Your task to perform on an android device: Search for vegetarian restaurants on Maps Image 0: 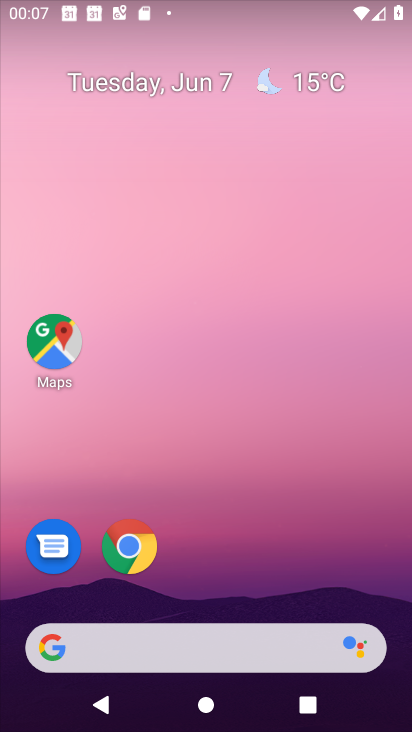
Step 0: click (74, 352)
Your task to perform on an android device: Search for vegetarian restaurants on Maps Image 1: 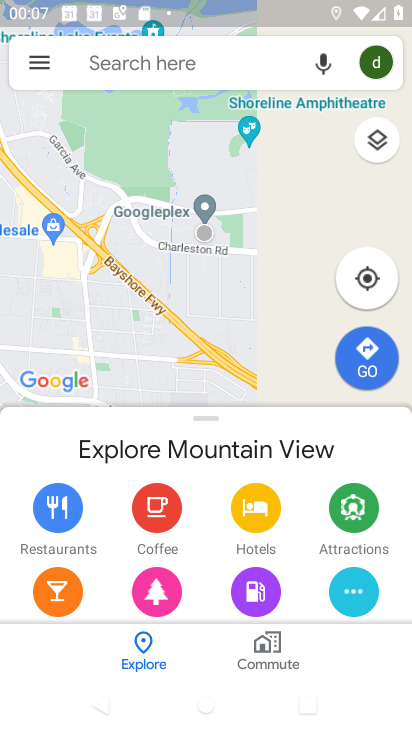
Step 1: click (162, 61)
Your task to perform on an android device: Search for vegetarian restaurants on Maps Image 2: 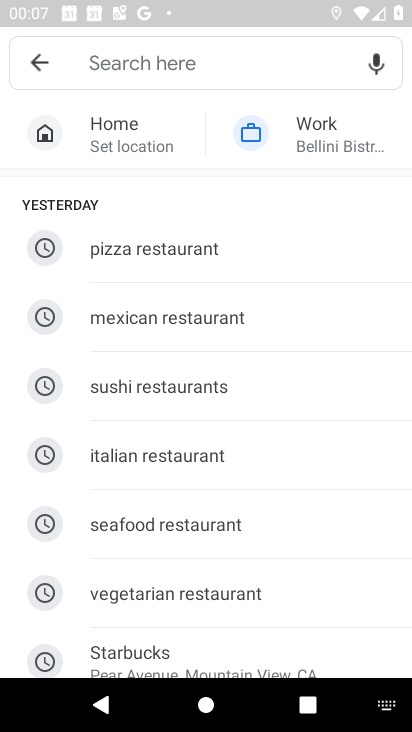
Step 2: type "vegetarian restaurants"
Your task to perform on an android device: Search for vegetarian restaurants on Maps Image 3: 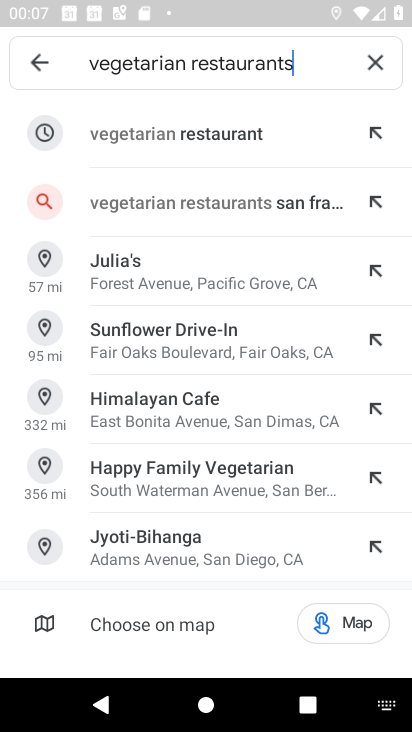
Step 3: click (246, 140)
Your task to perform on an android device: Search for vegetarian restaurants on Maps Image 4: 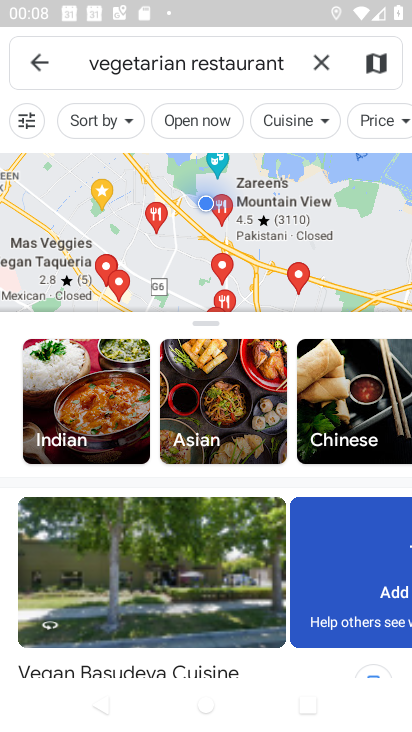
Step 4: task complete